Your task to perform on an android device: Search for "asus zenbook" on bestbuy, select the first entry, add it to the cart, then select checkout. Image 0: 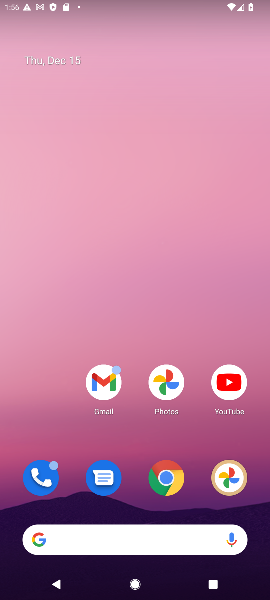
Step 0: click (162, 479)
Your task to perform on an android device: Search for "asus zenbook" on bestbuy, select the first entry, add it to the cart, then select checkout. Image 1: 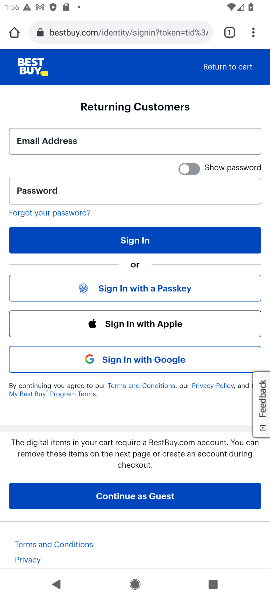
Step 1: press back button
Your task to perform on an android device: Search for "asus zenbook" on bestbuy, select the first entry, add it to the cart, then select checkout. Image 2: 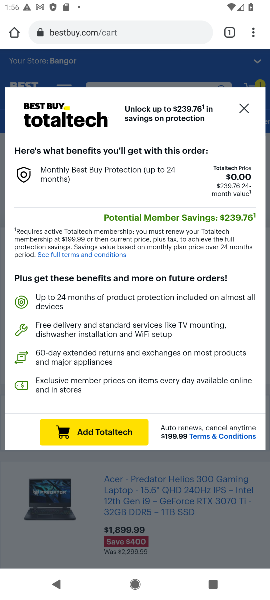
Step 2: click (239, 108)
Your task to perform on an android device: Search for "asus zenbook" on bestbuy, select the first entry, add it to the cart, then select checkout. Image 3: 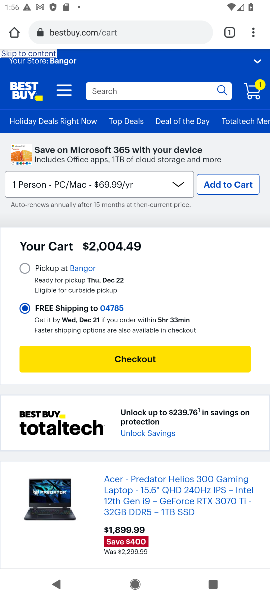
Step 3: click (144, 91)
Your task to perform on an android device: Search for "asus zenbook" on bestbuy, select the first entry, add it to the cart, then select checkout. Image 4: 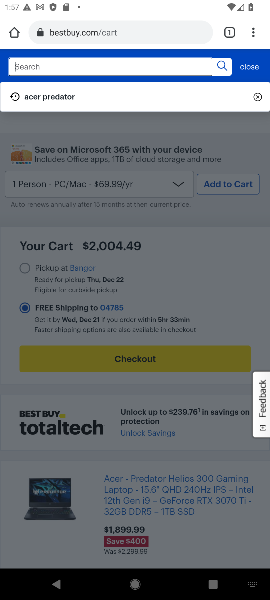
Step 4: type "asus zenbook"
Your task to perform on an android device: Search for "asus zenbook" on bestbuy, select the first entry, add it to the cart, then select checkout. Image 5: 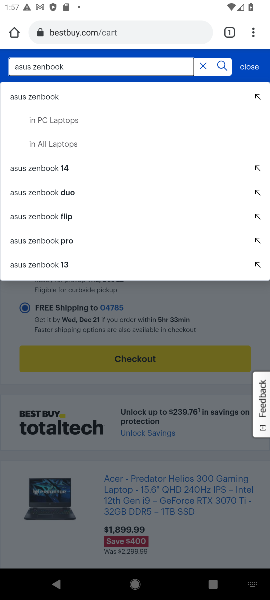
Step 5: click (30, 95)
Your task to perform on an android device: Search for "asus zenbook" on bestbuy, select the first entry, add it to the cart, then select checkout. Image 6: 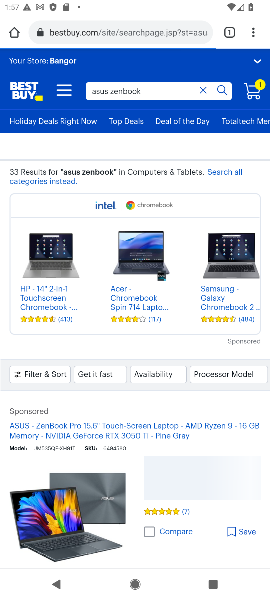
Step 6: drag from (110, 419) to (106, 230)
Your task to perform on an android device: Search for "asus zenbook" on bestbuy, select the first entry, add it to the cart, then select checkout. Image 7: 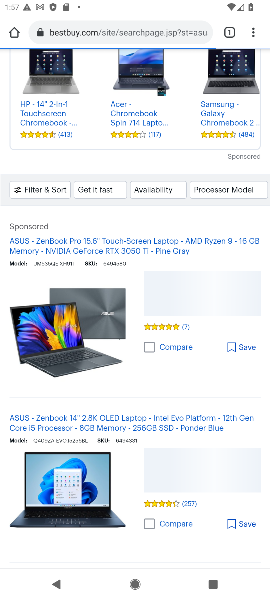
Step 7: click (95, 306)
Your task to perform on an android device: Search for "asus zenbook" on bestbuy, select the first entry, add it to the cart, then select checkout. Image 8: 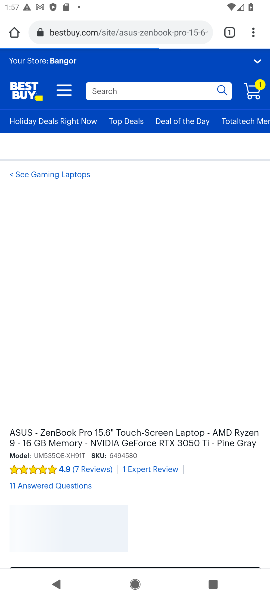
Step 8: drag from (164, 449) to (172, 220)
Your task to perform on an android device: Search for "asus zenbook" on bestbuy, select the first entry, add it to the cart, then select checkout. Image 9: 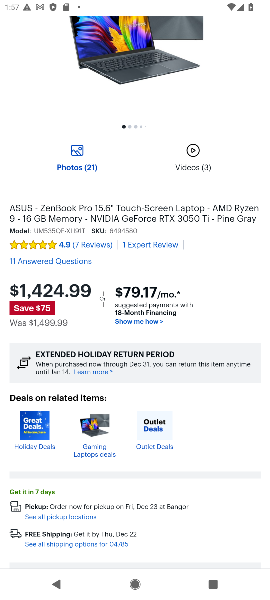
Step 9: drag from (159, 436) to (169, 225)
Your task to perform on an android device: Search for "asus zenbook" on bestbuy, select the first entry, add it to the cart, then select checkout. Image 10: 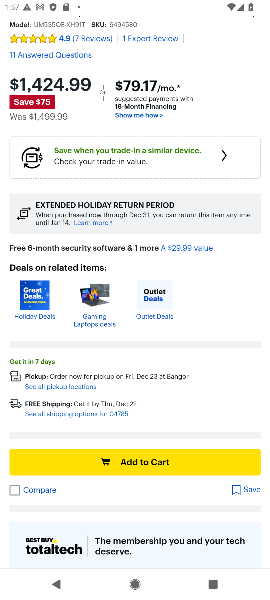
Step 10: click (128, 446)
Your task to perform on an android device: Search for "asus zenbook" on bestbuy, select the first entry, add it to the cart, then select checkout. Image 11: 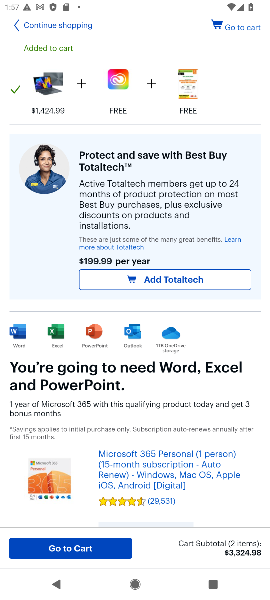
Step 11: click (246, 29)
Your task to perform on an android device: Search for "asus zenbook" on bestbuy, select the first entry, add it to the cart, then select checkout. Image 12: 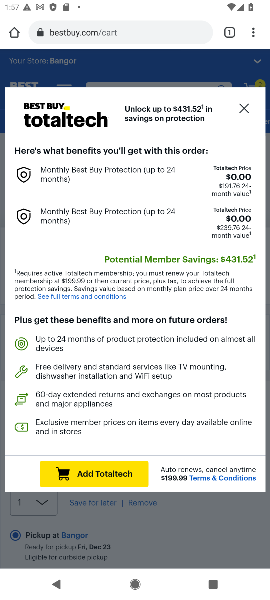
Step 12: click (241, 106)
Your task to perform on an android device: Search for "asus zenbook" on bestbuy, select the first entry, add it to the cart, then select checkout. Image 13: 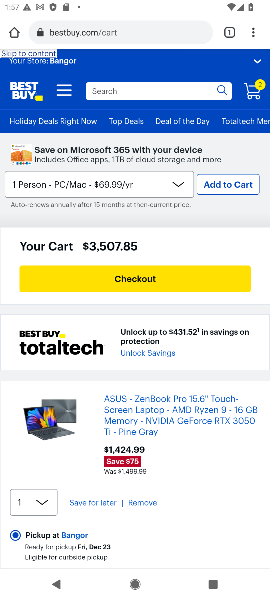
Step 13: click (116, 285)
Your task to perform on an android device: Search for "asus zenbook" on bestbuy, select the first entry, add it to the cart, then select checkout. Image 14: 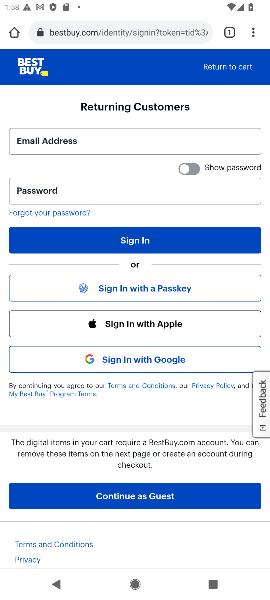
Step 14: task complete